Your task to perform on an android device: open the mobile data screen to see how much data has been used Image 0: 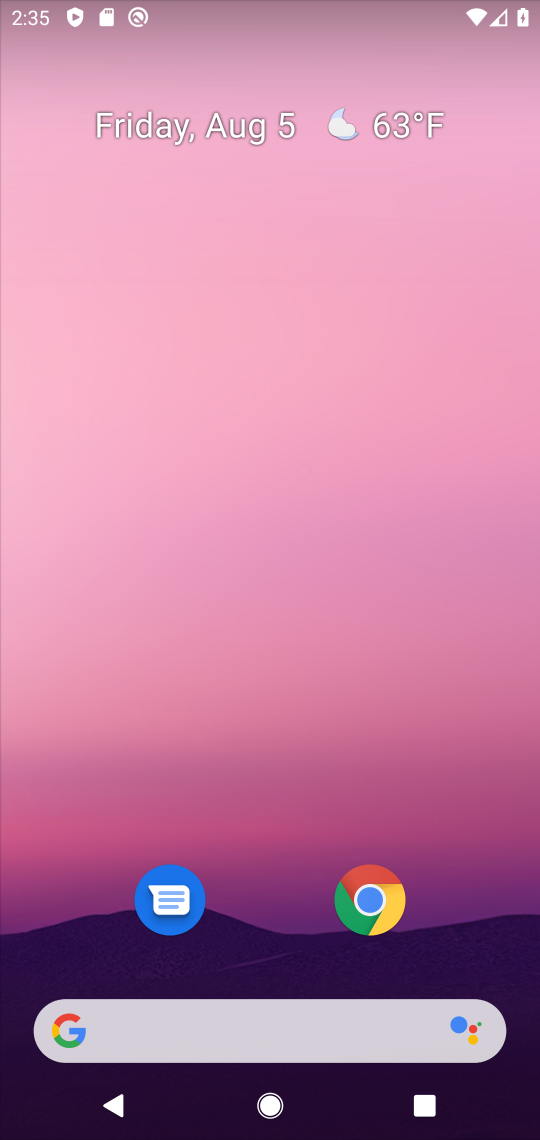
Step 0: drag from (256, 960) to (269, 14)
Your task to perform on an android device: open the mobile data screen to see how much data has been used Image 1: 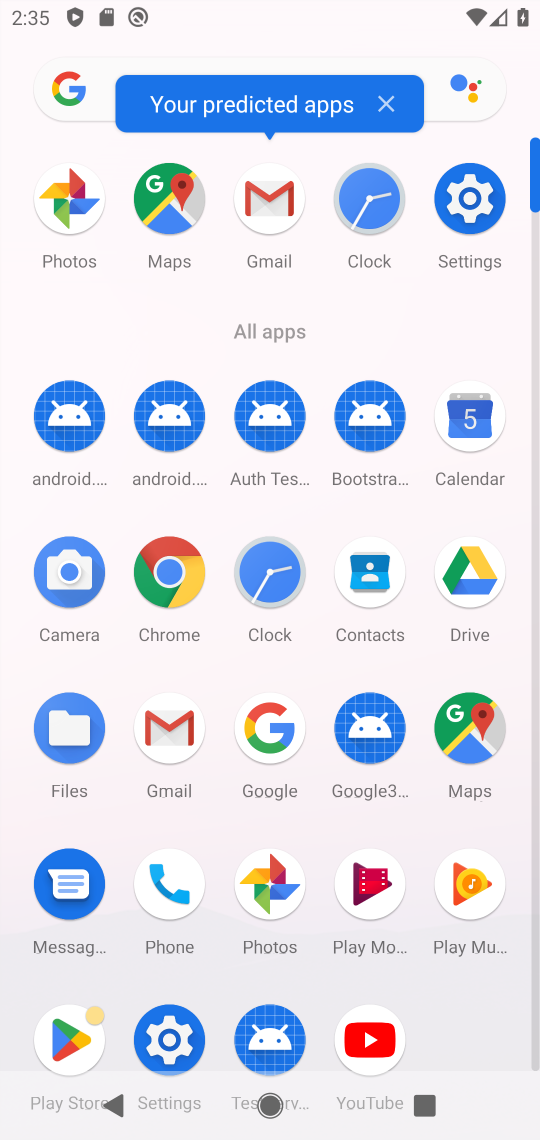
Step 1: click (442, 212)
Your task to perform on an android device: open the mobile data screen to see how much data has been used Image 2: 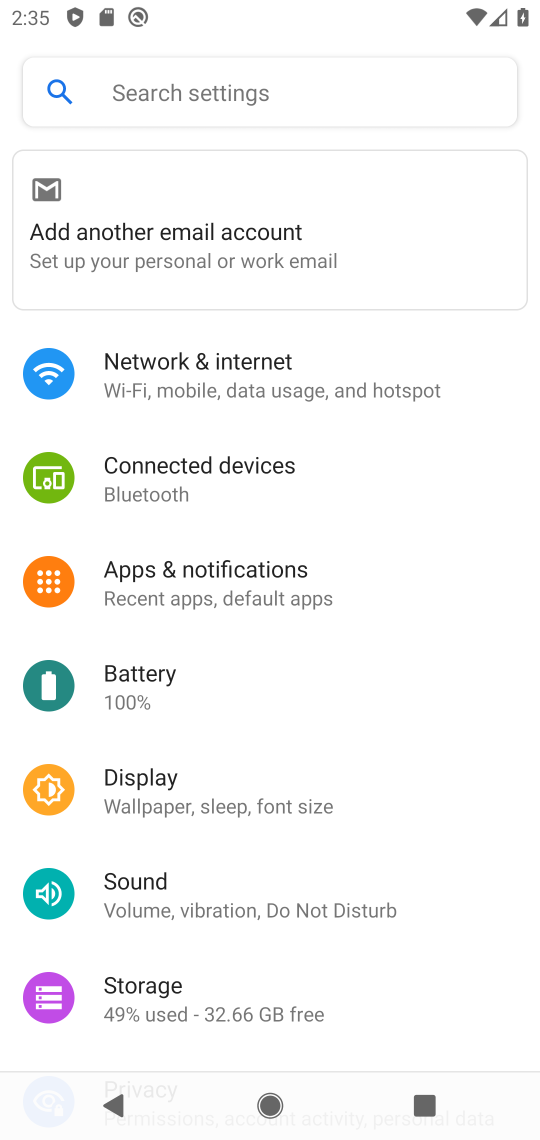
Step 2: task complete